Your task to perform on an android device: toggle notification dots Image 0: 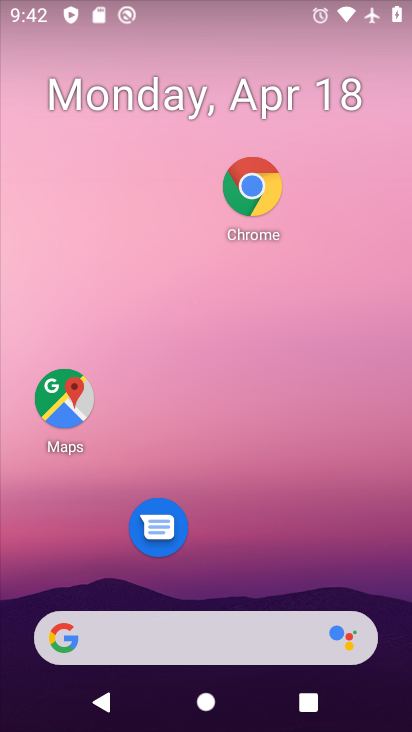
Step 0: drag from (256, 553) to (289, 120)
Your task to perform on an android device: toggle notification dots Image 1: 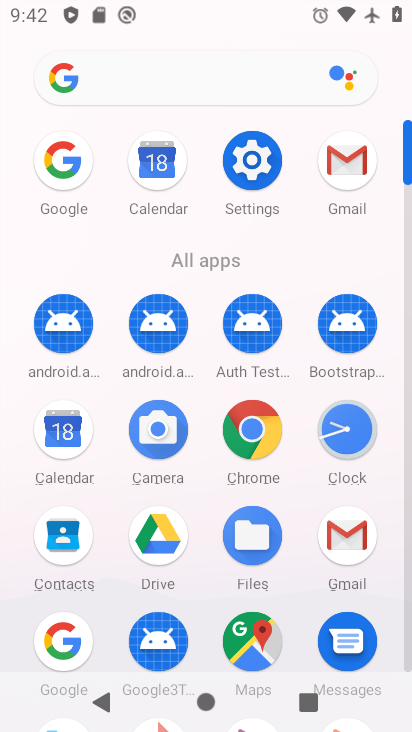
Step 1: click (246, 172)
Your task to perform on an android device: toggle notification dots Image 2: 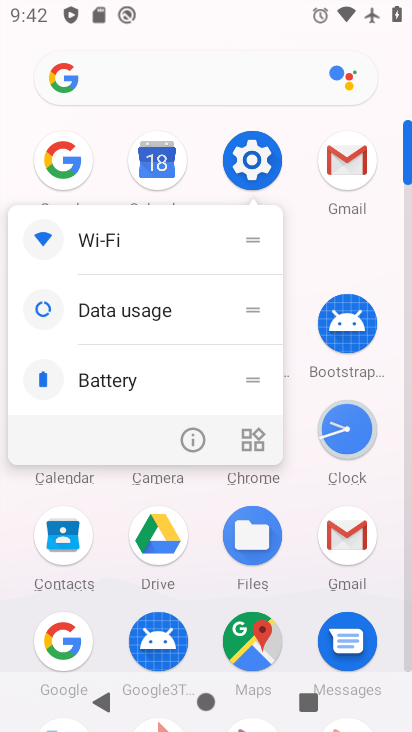
Step 2: click (244, 172)
Your task to perform on an android device: toggle notification dots Image 3: 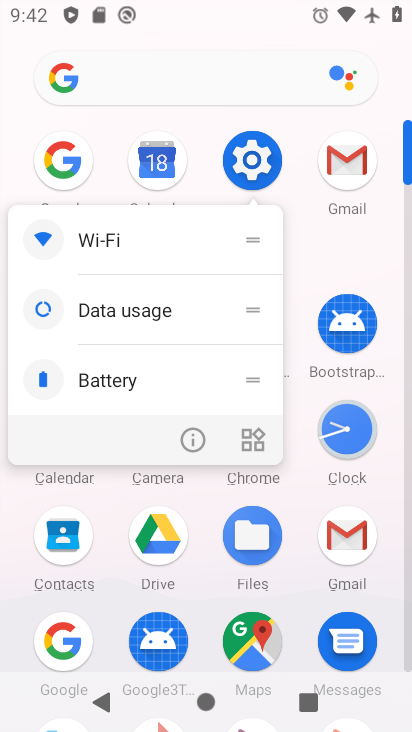
Step 3: click (243, 170)
Your task to perform on an android device: toggle notification dots Image 4: 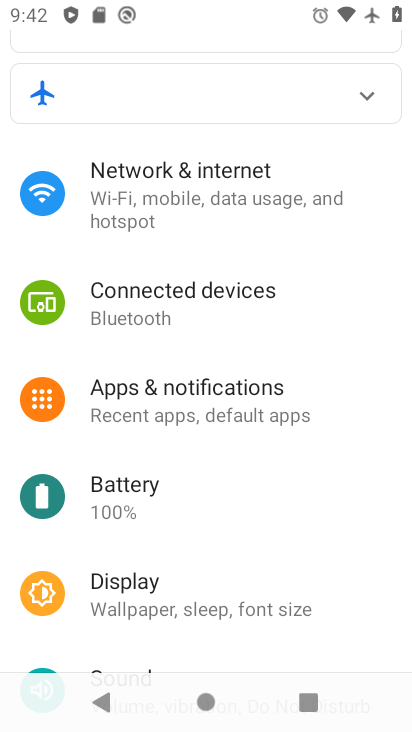
Step 4: click (202, 404)
Your task to perform on an android device: toggle notification dots Image 5: 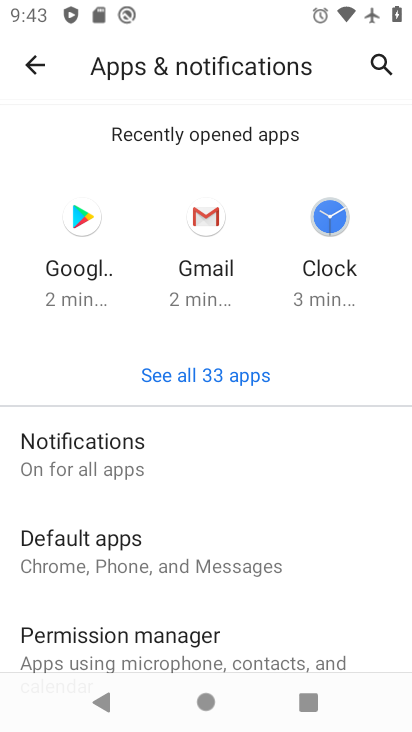
Step 5: drag from (220, 534) to (216, 233)
Your task to perform on an android device: toggle notification dots Image 6: 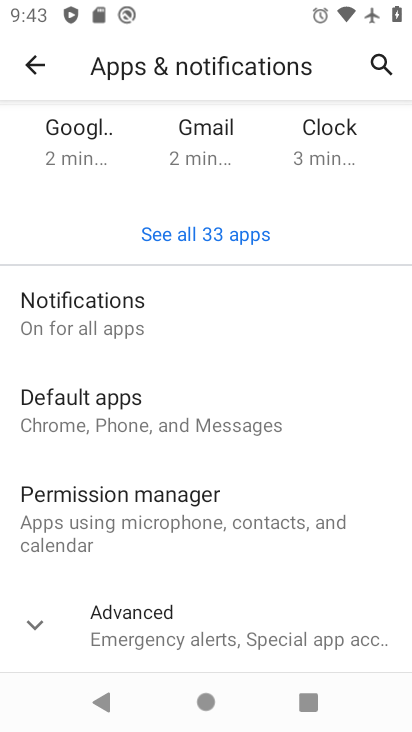
Step 6: click (97, 323)
Your task to perform on an android device: toggle notification dots Image 7: 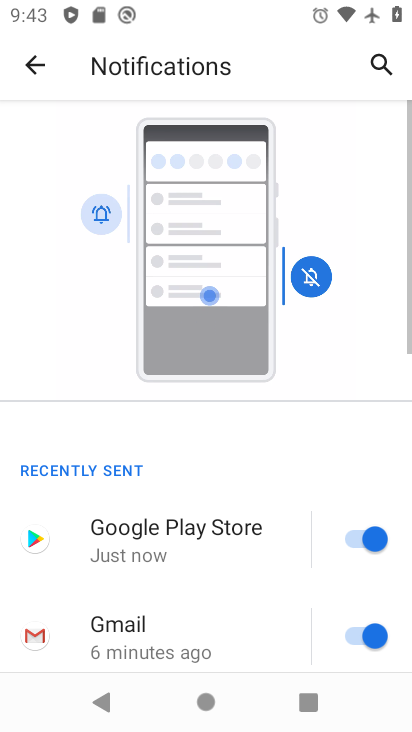
Step 7: drag from (274, 390) to (236, 88)
Your task to perform on an android device: toggle notification dots Image 8: 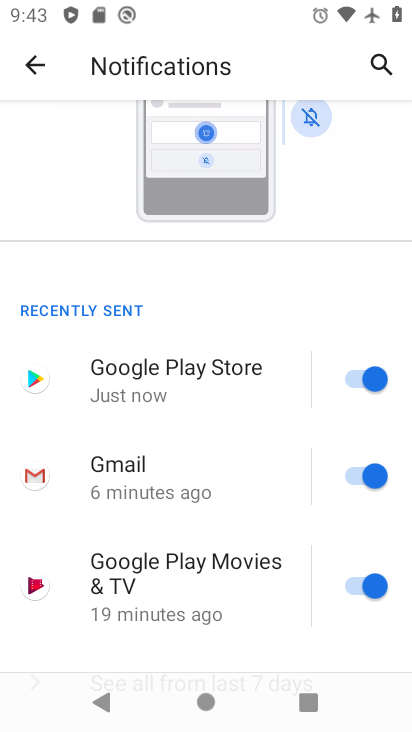
Step 8: drag from (230, 529) to (221, 205)
Your task to perform on an android device: toggle notification dots Image 9: 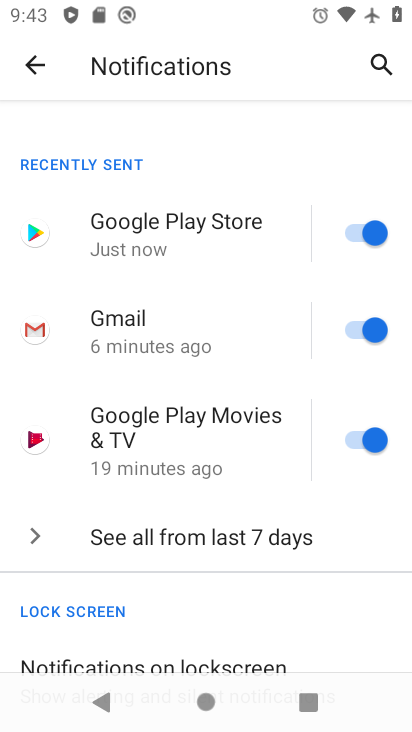
Step 9: drag from (177, 592) to (168, 123)
Your task to perform on an android device: toggle notification dots Image 10: 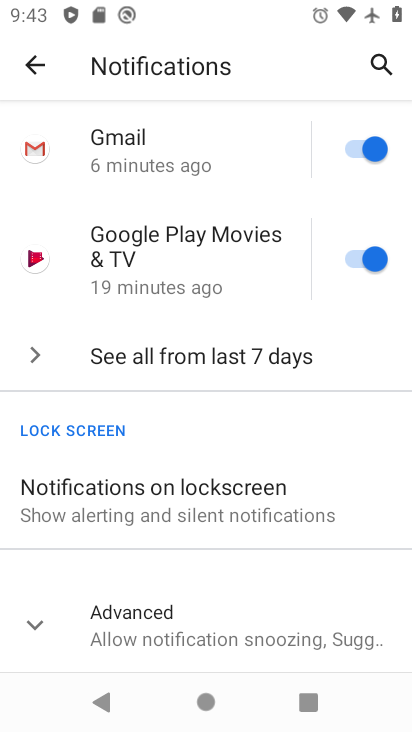
Step 10: click (189, 633)
Your task to perform on an android device: toggle notification dots Image 11: 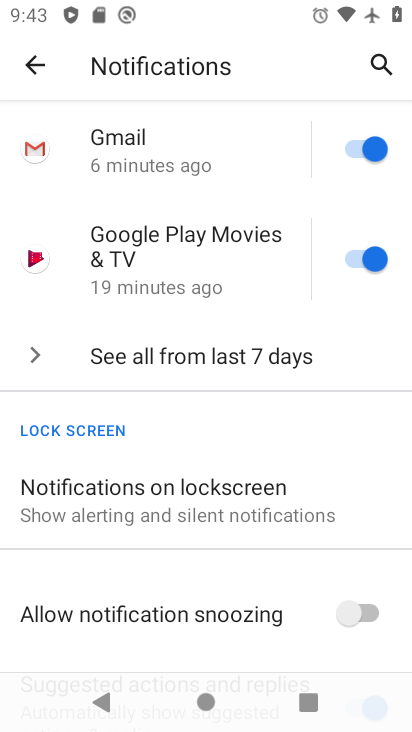
Step 11: drag from (128, 437) to (135, 231)
Your task to perform on an android device: toggle notification dots Image 12: 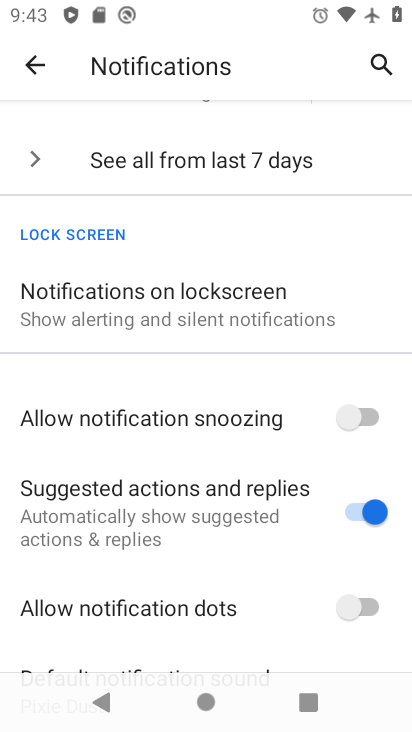
Step 12: click (371, 601)
Your task to perform on an android device: toggle notification dots Image 13: 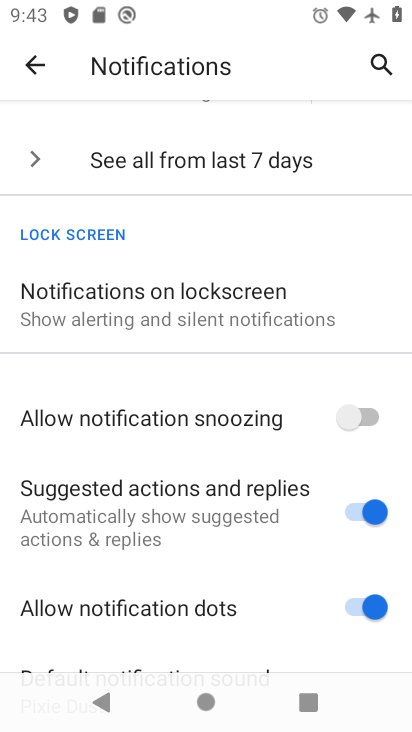
Step 13: task complete